Your task to perform on an android device: turn pop-ups off in chrome Image 0: 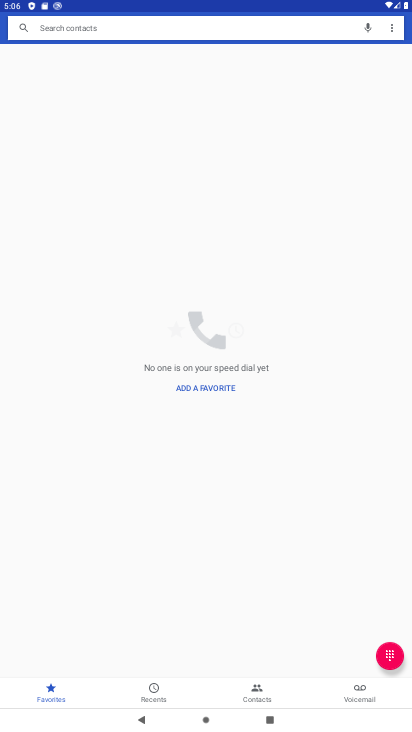
Step 0: press back button
Your task to perform on an android device: turn pop-ups off in chrome Image 1: 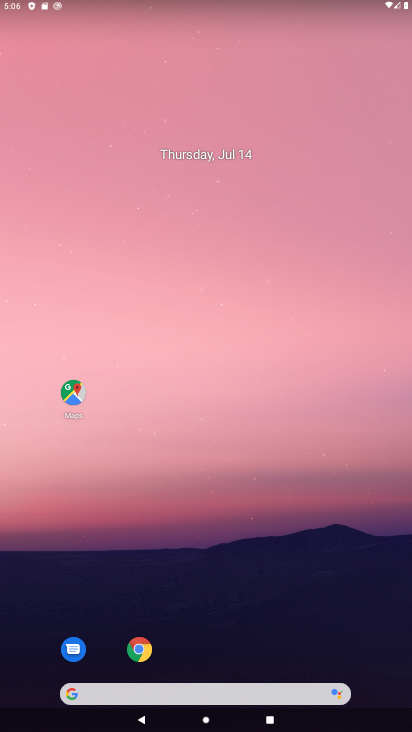
Step 1: click (138, 648)
Your task to perform on an android device: turn pop-ups off in chrome Image 2: 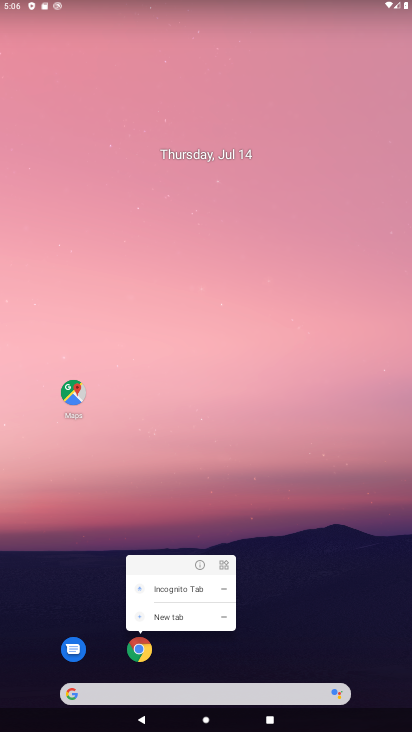
Step 2: click (140, 654)
Your task to perform on an android device: turn pop-ups off in chrome Image 3: 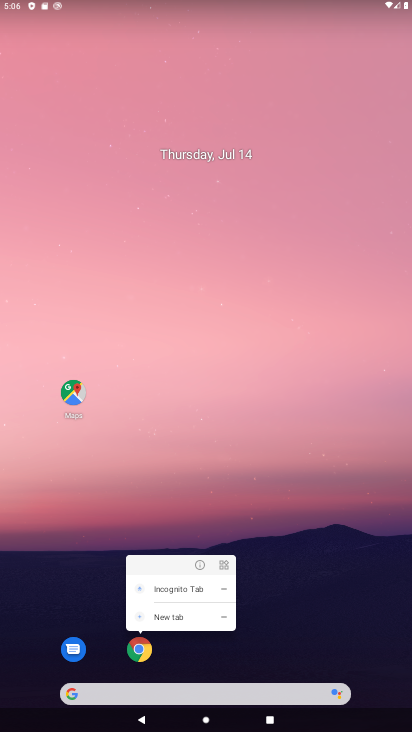
Step 3: click (141, 649)
Your task to perform on an android device: turn pop-ups off in chrome Image 4: 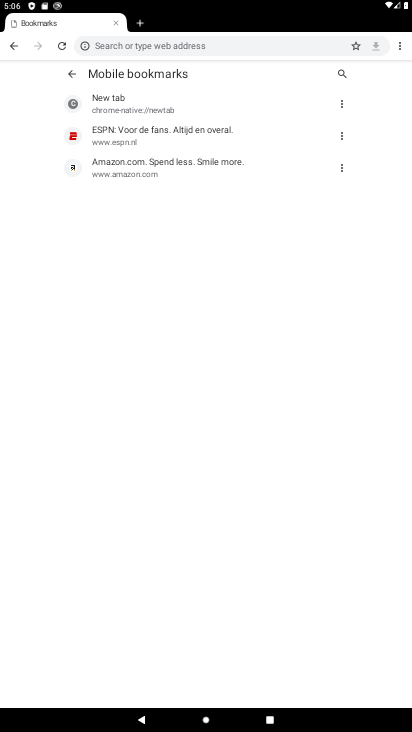
Step 4: drag from (401, 44) to (314, 210)
Your task to perform on an android device: turn pop-ups off in chrome Image 5: 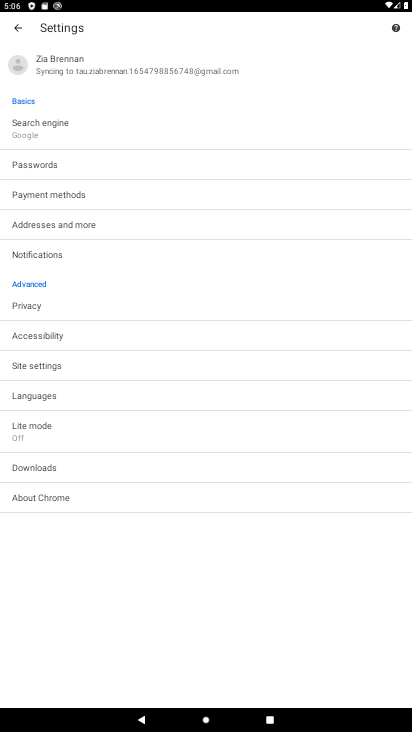
Step 5: click (56, 370)
Your task to perform on an android device: turn pop-ups off in chrome Image 6: 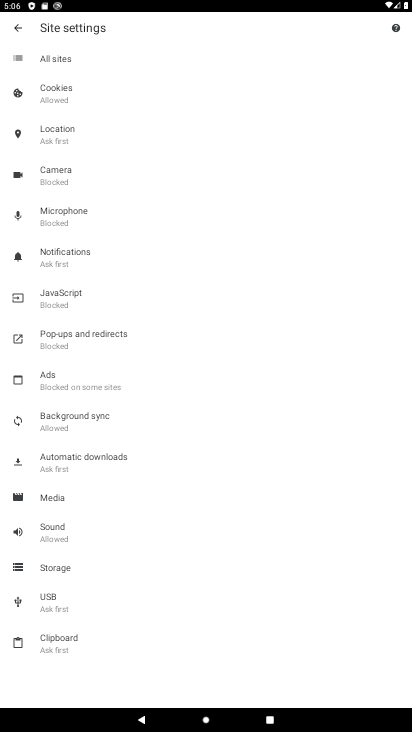
Step 6: click (98, 341)
Your task to perform on an android device: turn pop-ups off in chrome Image 7: 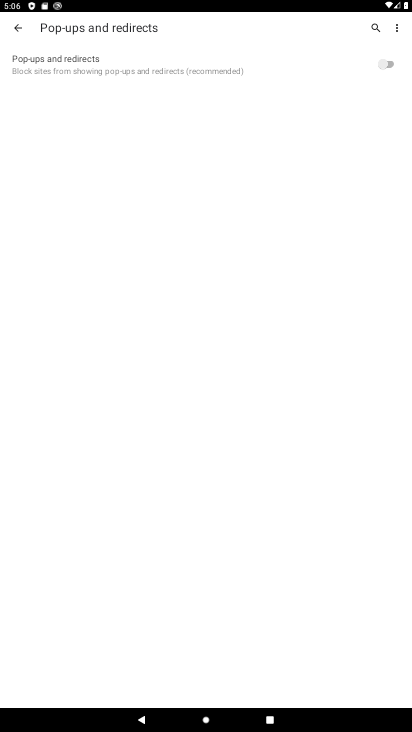
Step 7: task complete